Your task to perform on an android device: find snoozed emails in the gmail app Image 0: 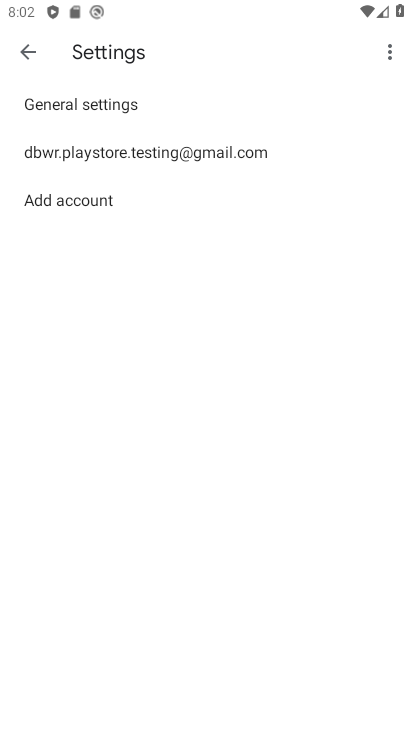
Step 0: press home button
Your task to perform on an android device: find snoozed emails in the gmail app Image 1: 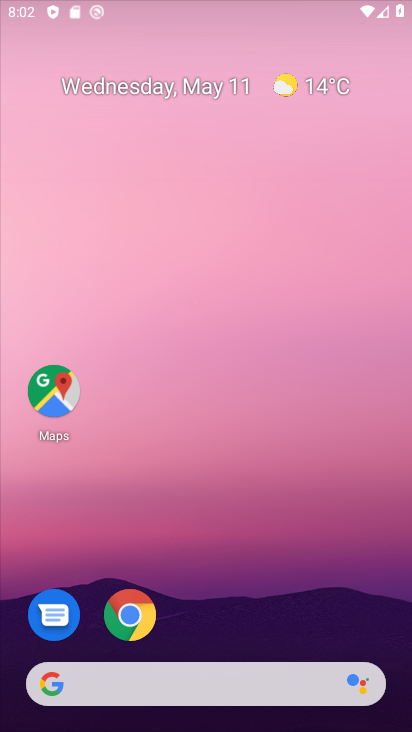
Step 1: drag from (356, 615) to (294, 179)
Your task to perform on an android device: find snoozed emails in the gmail app Image 2: 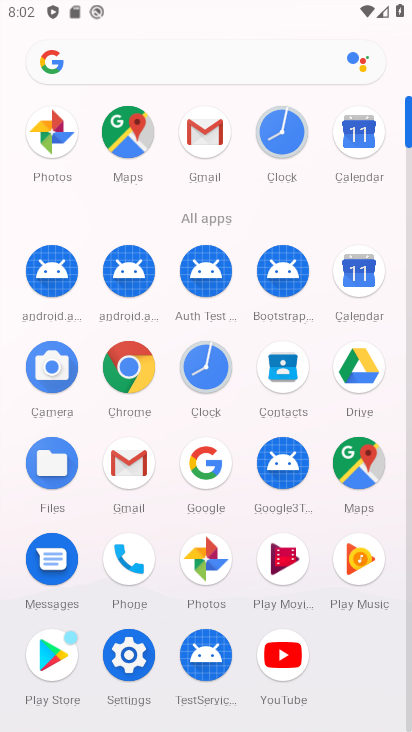
Step 2: click (210, 132)
Your task to perform on an android device: find snoozed emails in the gmail app Image 3: 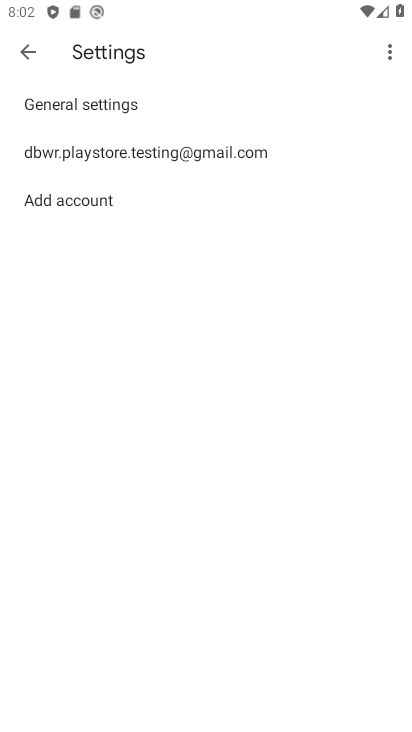
Step 3: press back button
Your task to perform on an android device: find snoozed emails in the gmail app Image 4: 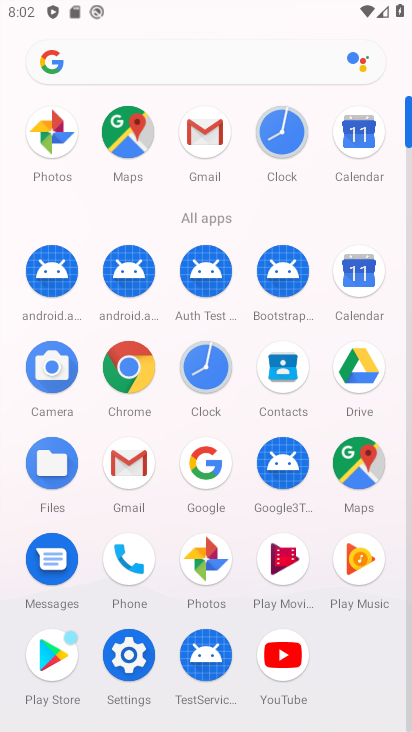
Step 4: click (191, 140)
Your task to perform on an android device: find snoozed emails in the gmail app Image 5: 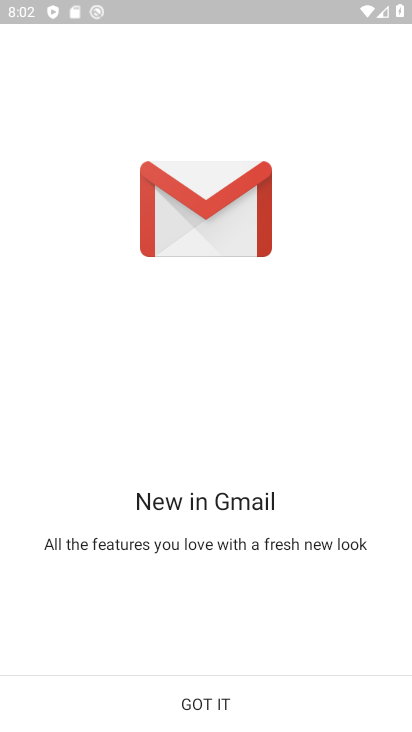
Step 5: click (230, 700)
Your task to perform on an android device: find snoozed emails in the gmail app Image 6: 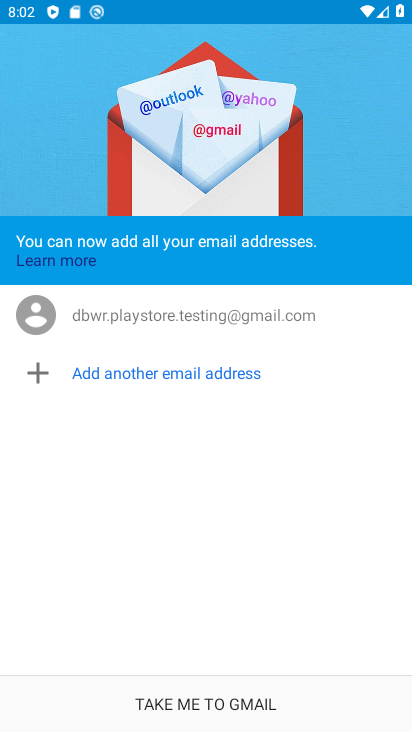
Step 6: click (230, 700)
Your task to perform on an android device: find snoozed emails in the gmail app Image 7: 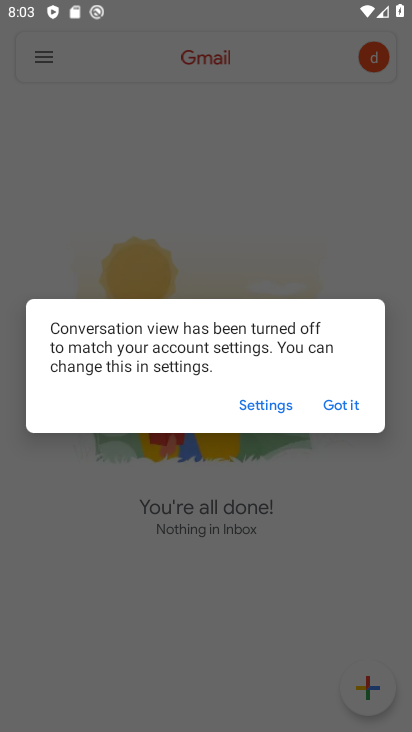
Step 7: click (343, 406)
Your task to perform on an android device: find snoozed emails in the gmail app Image 8: 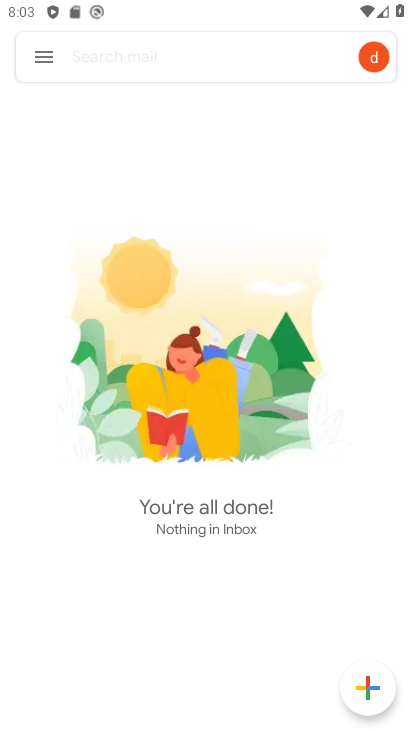
Step 8: click (53, 60)
Your task to perform on an android device: find snoozed emails in the gmail app Image 9: 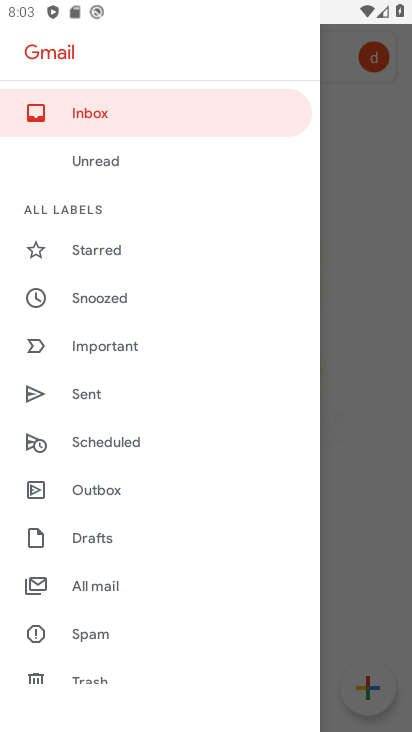
Step 9: click (114, 302)
Your task to perform on an android device: find snoozed emails in the gmail app Image 10: 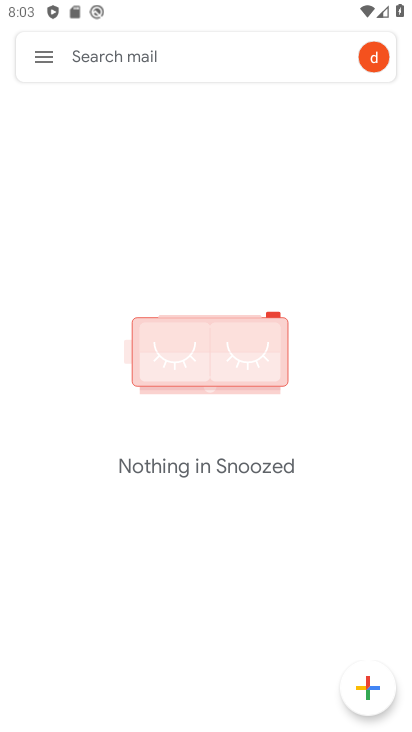
Step 10: task complete